Your task to perform on an android device: Turn off the flashlight Image 0: 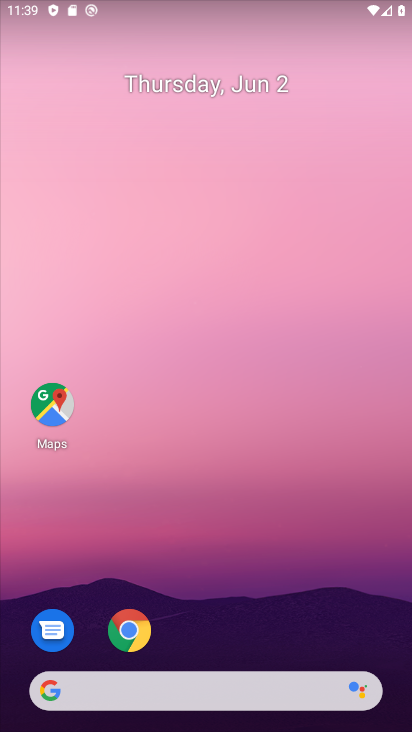
Step 0: drag from (201, 8) to (218, 529)
Your task to perform on an android device: Turn off the flashlight Image 1: 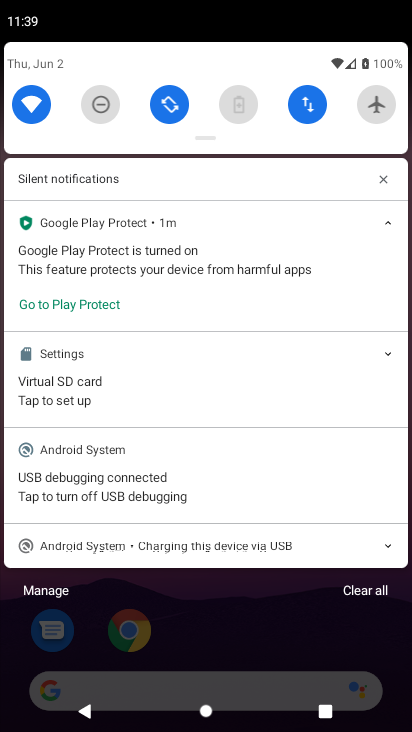
Step 1: drag from (200, 113) to (210, 410)
Your task to perform on an android device: Turn off the flashlight Image 2: 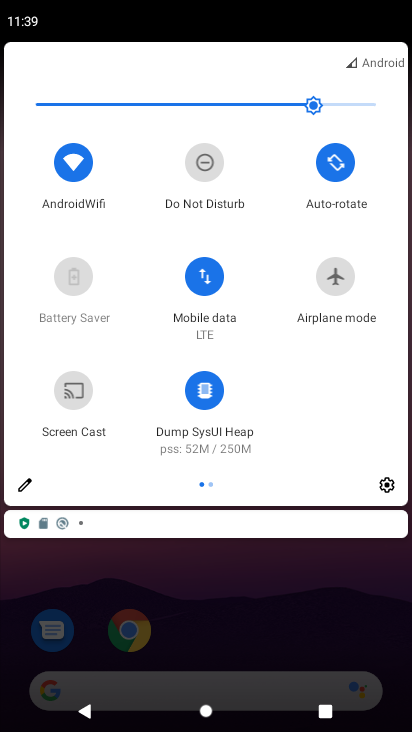
Step 2: drag from (337, 419) to (15, 380)
Your task to perform on an android device: Turn off the flashlight Image 3: 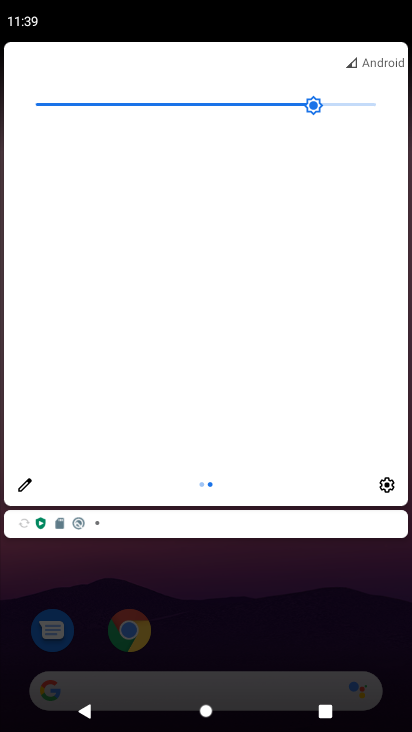
Step 3: click (14, 476)
Your task to perform on an android device: Turn off the flashlight Image 4: 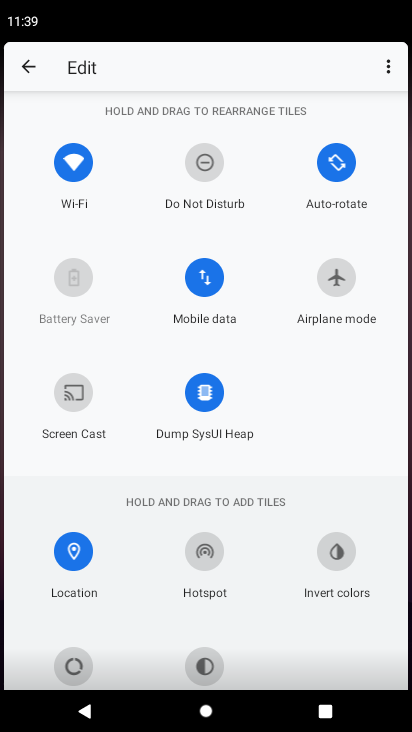
Step 4: task complete